Your task to perform on an android device: What's the latest video from GameSpot Reviews? Image 0: 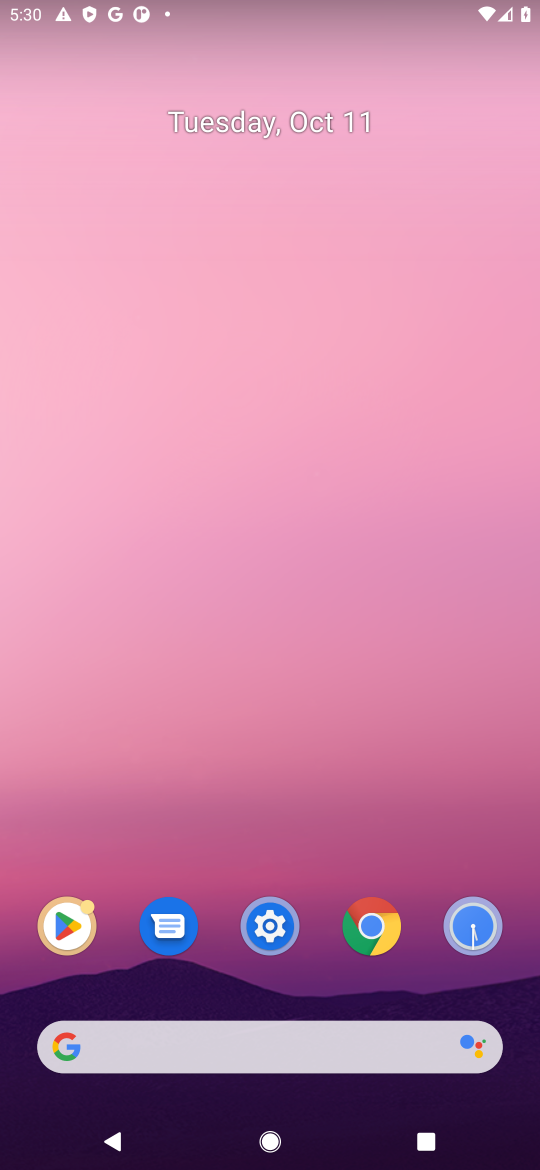
Step 0: click (246, 1055)
Your task to perform on an android device: What's the latest video from GameSpot Reviews? Image 1: 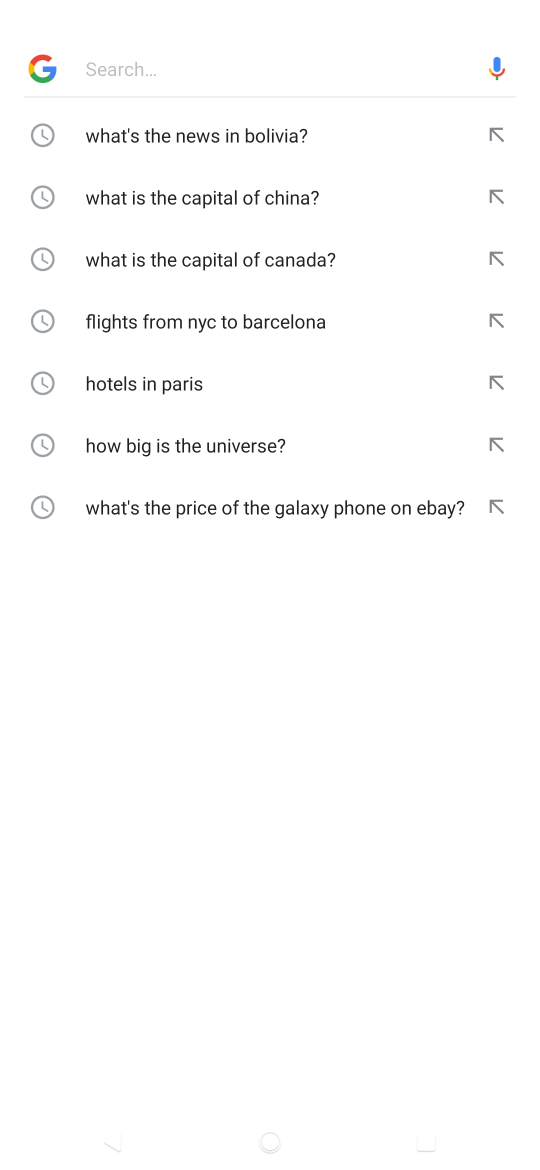
Step 1: type "What's the latest video from GameSpot Reviews"
Your task to perform on an android device: What's the latest video from GameSpot Reviews? Image 2: 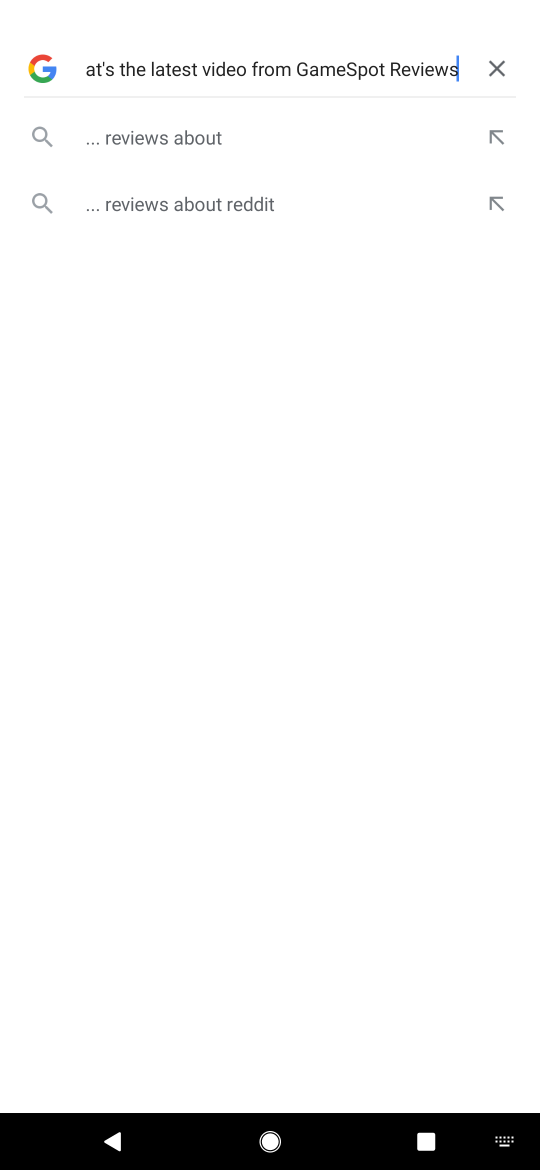
Step 2: click (174, 136)
Your task to perform on an android device: What's the latest video from GameSpot Reviews? Image 3: 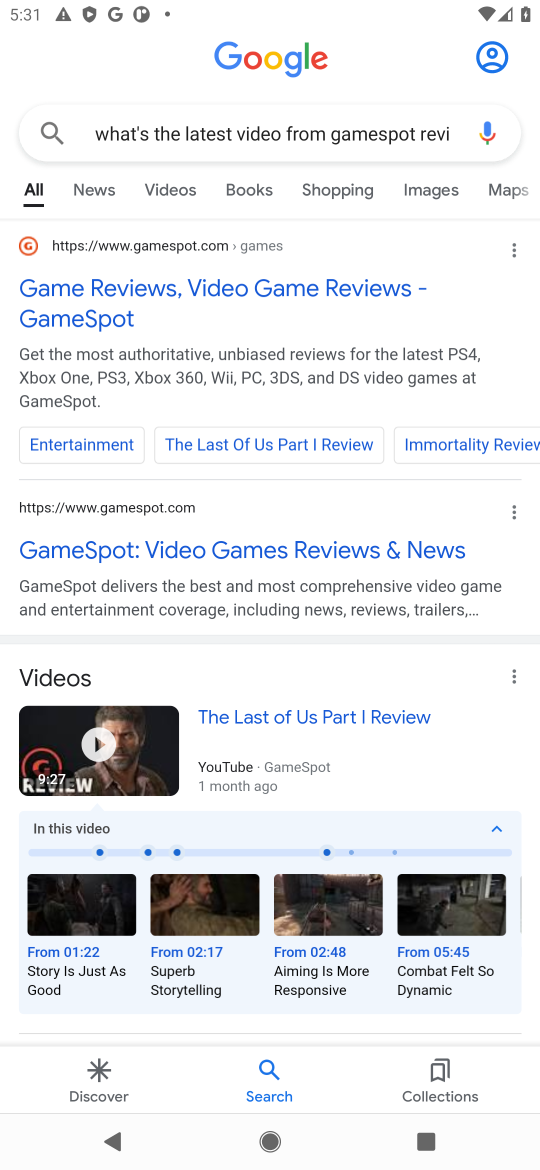
Step 3: click (101, 299)
Your task to perform on an android device: What's the latest video from GameSpot Reviews? Image 4: 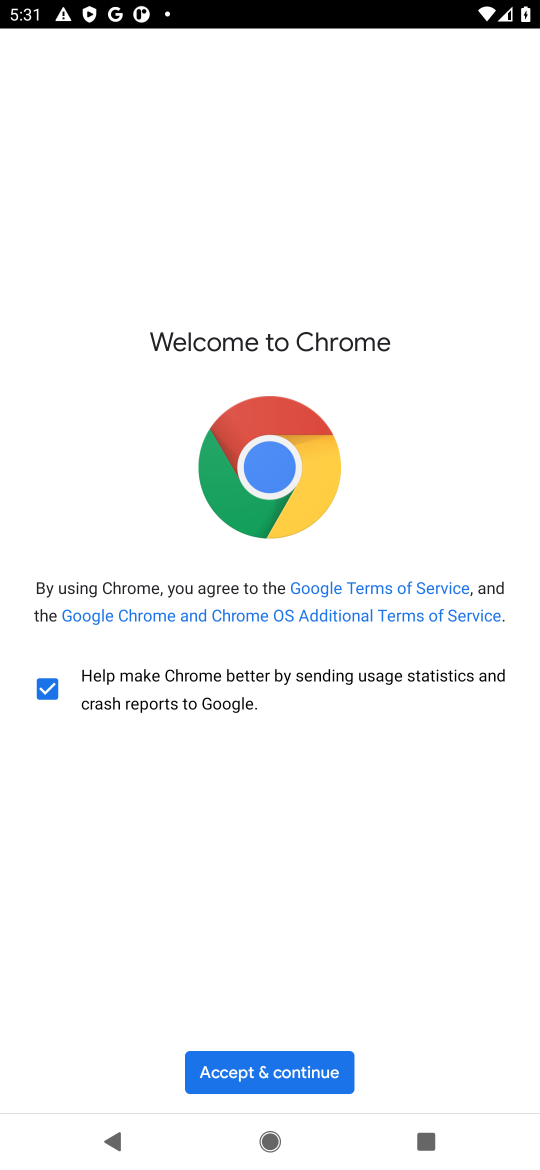
Step 4: click (239, 1069)
Your task to perform on an android device: What's the latest video from GameSpot Reviews? Image 5: 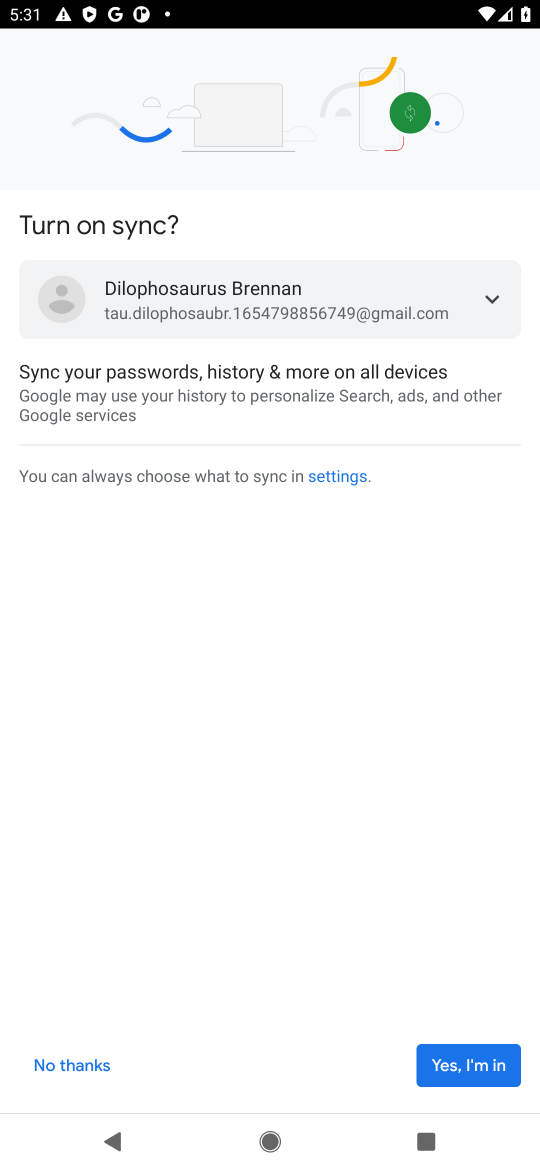
Step 5: click (440, 1069)
Your task to perform on an android device: What's the latest video from GameSpot Reviews? Image 6: 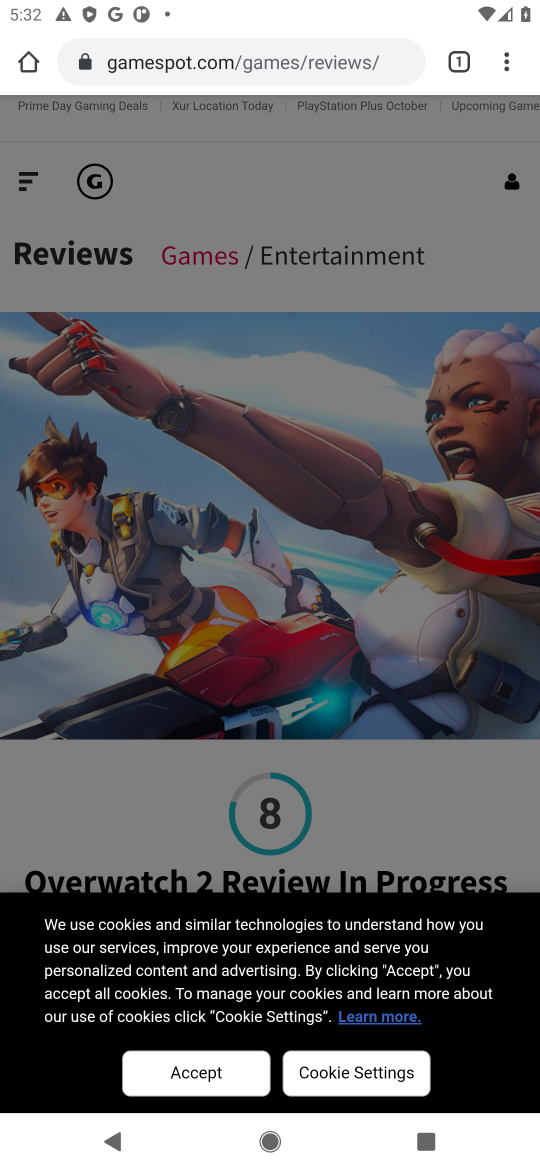
Step 6: click (188, 1071)
Your task to perform on an android device: What's the latest video from GameSpot Reviews? Image 7: 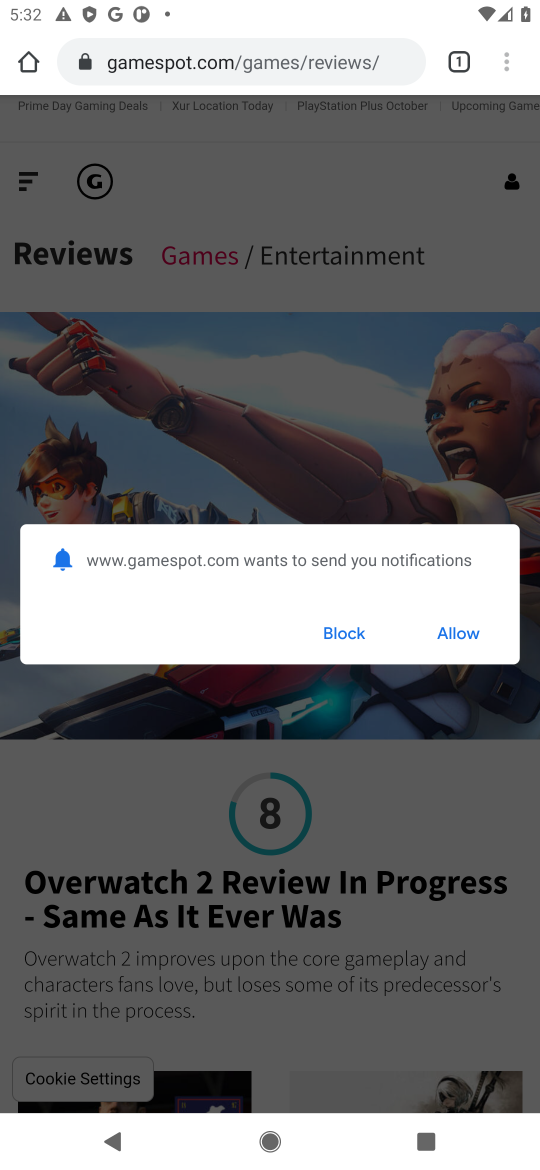
Step 7: click (465, 630)
Your task to perform on an android device: What's the latest video from GameSpot Reviews? Image 8: 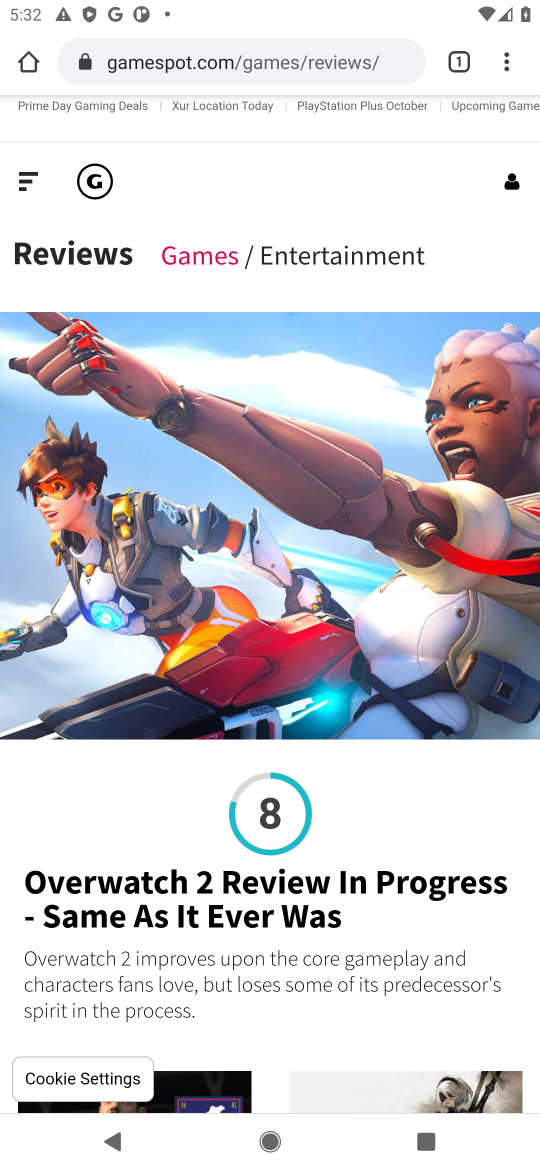
Step 8: task complete